Your task to perform on an android device: Add macbook to the cart on newegg, then select checkout. Image 0: 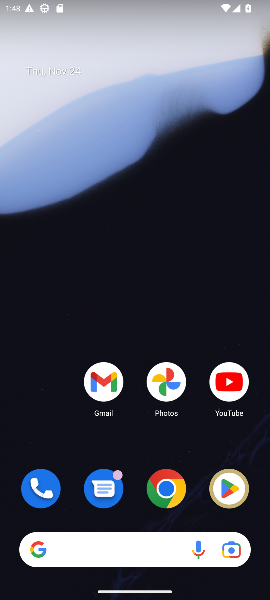
Step 0: click (169, 492)
Your task to perform on an android device: Add macbook to the cart on newegg, then select checkout. Image 1: 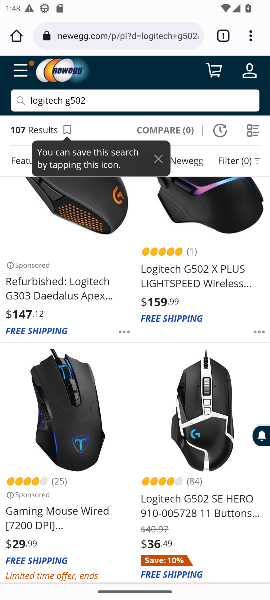
Step 1: click (85, 98)
Your task to perform on an android device: Add macbook to the cart on newegg, then select checkout. Image 2: 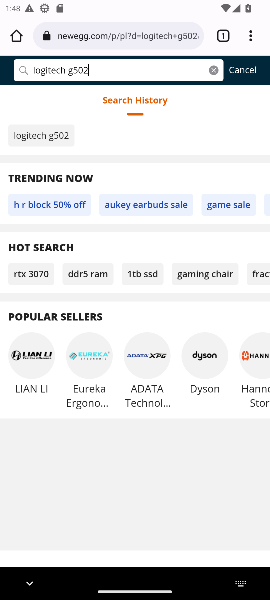
Step 2: click (211, 71)
Your task to perform on an android device: Add macbook to the cart on newegg, then select checkout. Image 3: 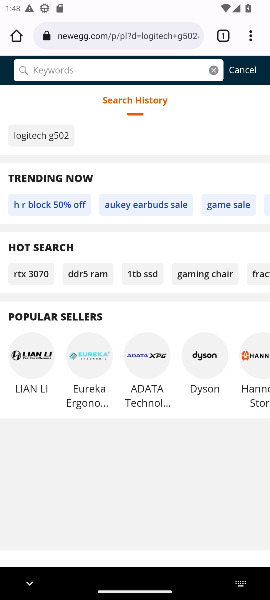
Step 3: click (45, 66)
Your task to perform on an android device: Add macbook to the cart on newegg, then select checkout. Image 4: 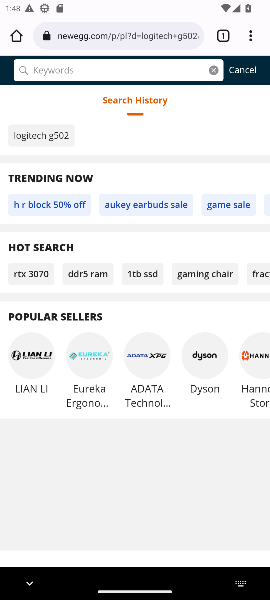
Step 4: type "macbook"
Your task to perform on an android device: Add macbook to the cart on newegg, then select checkout. Image 5: 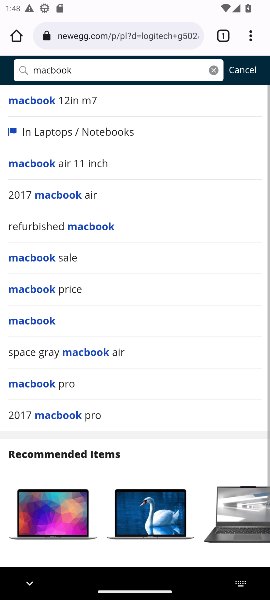
Step 5: click (41, 325)
Your task to perform on an android device: Add macbook to the cart on newegg, then select checkout. Image 6: 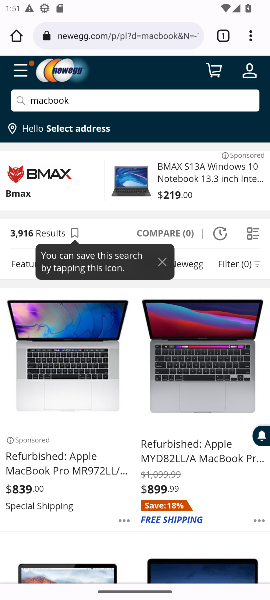
Step 6: drag from (55, 361) to (50, 226)
Your task to perform on an android device: Add macbook to the cart on newegg, then select checkout. Image 7: 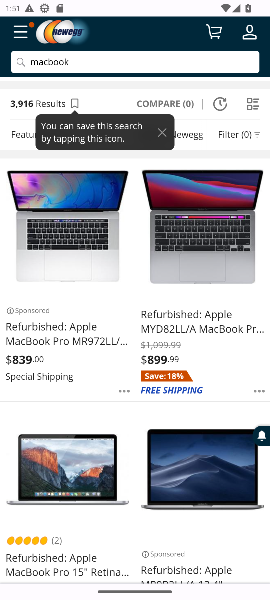
Step 7: click (50, 236)
Your task to perform on an android device: Add macbook to the cart on newegg, then select checkout. Image 8: 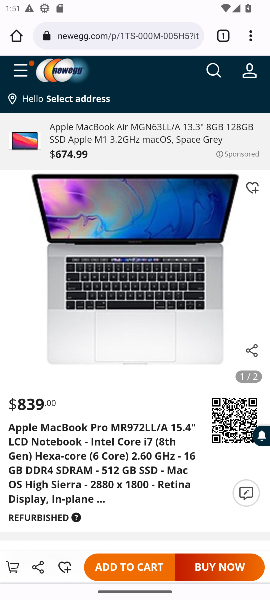
Step 8: drag from (120, 487) to (108, 307)
Your task to perform on an android device: Add macbook to the cart on newegg, then select checkout. Image 9: 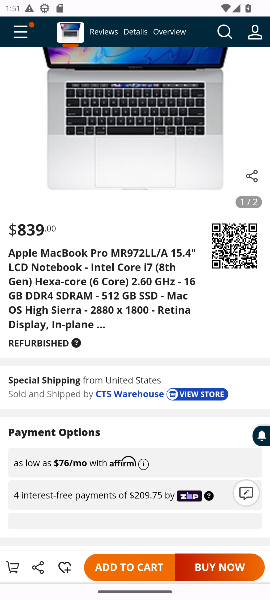
Step 9: click (122, 566)
Your task to perform on an android device: Add macbook to the cart on newegg, then select checkout. Image 10: 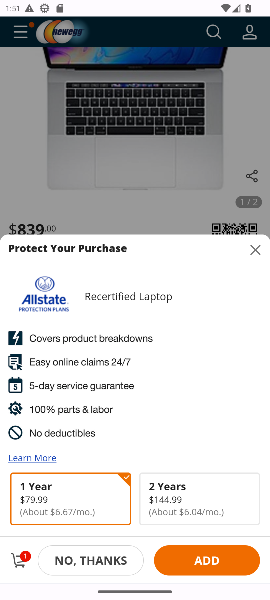
Step 10: click (22, 567)
Your task to perform on an android device: Add macbook to the cart on newegg, then select checkout. Image 11: 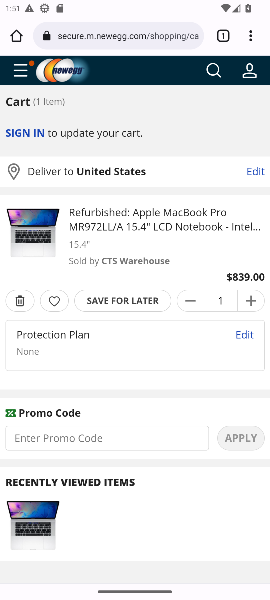
Step 11: drag from (133, 483) to (122, 391)
Your task to perform on an android device: Add macbook to the cart on newegg, then select checkout. Image 12: 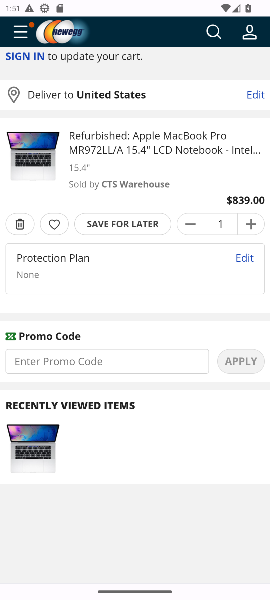
Step 12: drag from (116, 487) to (113, 381)
Your task to perform on an android device: Add macbook to the cart on newegg, then select checkout. Image 13: 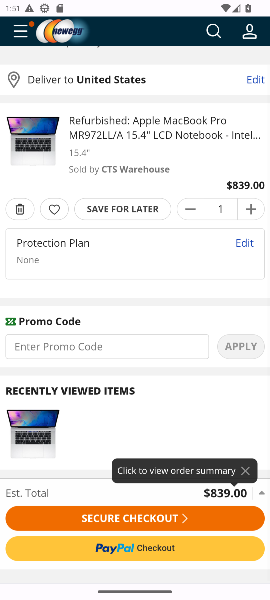
Step 13: click (104, 513)
Your task to perform on an android device: Add macbook to the cart on newegg, then select checkout. Image 14: 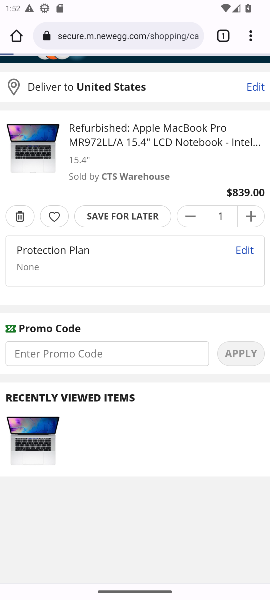
Step 14: click (104, 513)
Your task to perform on an android device: Add macbook to the cart on newegg, then select checkout. Image 15: 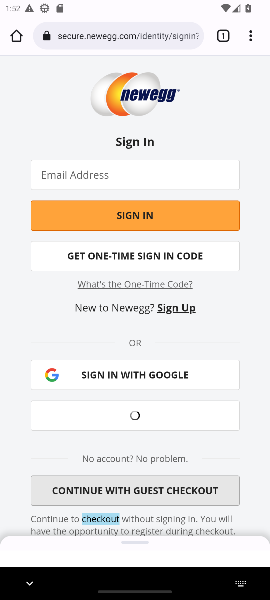
Step 15: task complete